Your task to perform on an android device: show emergency info Image 0: 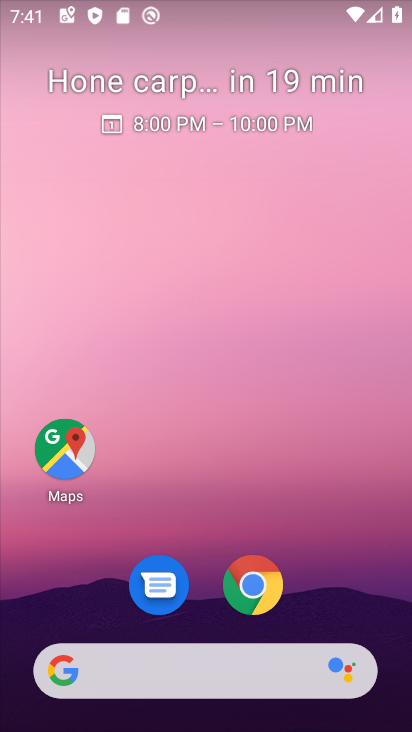
Step 0: drag from (323, 560) to (283, 85)
Your task to perform on an android device: show emergency info Image 1: 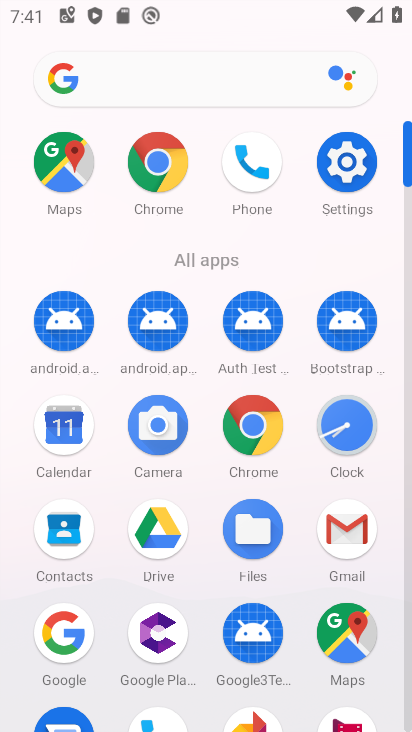
Step 1: click (345, 166)
Your task to perform on an android device: show emergency info Image 2: 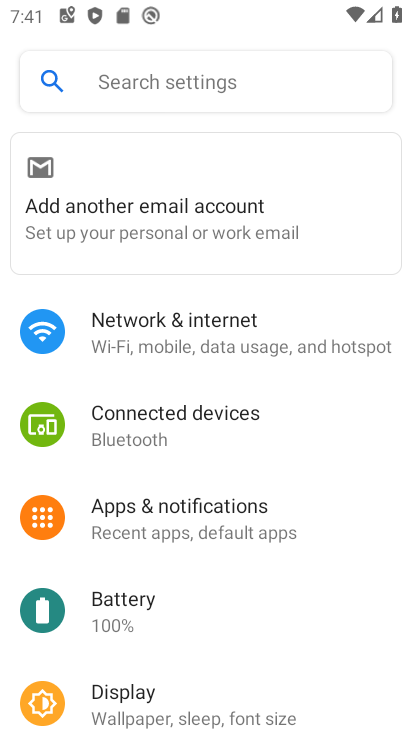
Step 2: drag from (210, 582) to (324, 140)
Your task to perform on an android device: show emergency info Image 3: 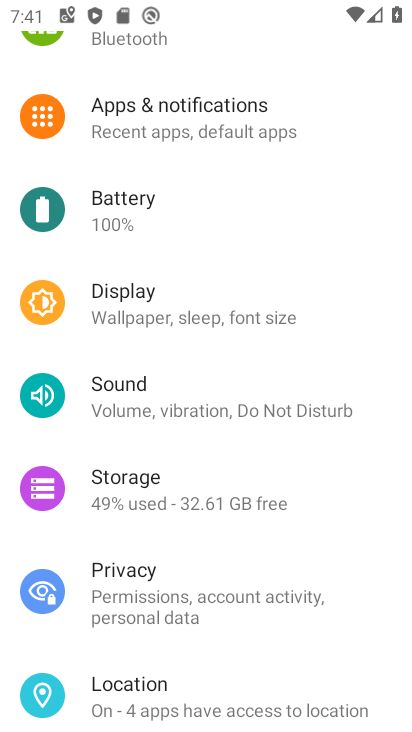
Step 3: drag from (218, 523) to (236, 98)
Your task to perform on an android device: show emergency info Image 4: 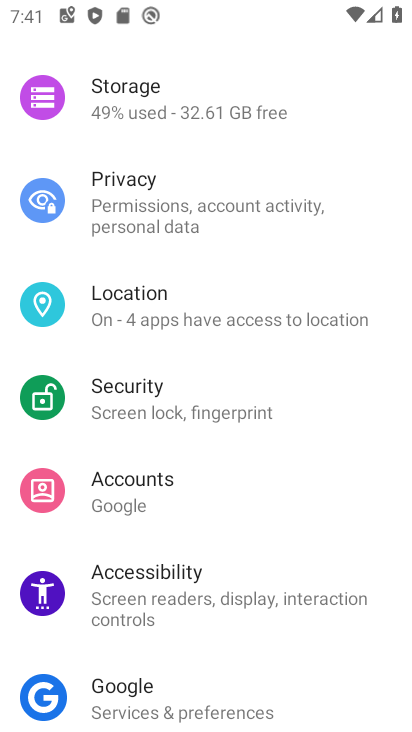
Step 4: drag from (225, 642) to (264, 266)
Your task to perform on an android device: show emergency info Image 5: 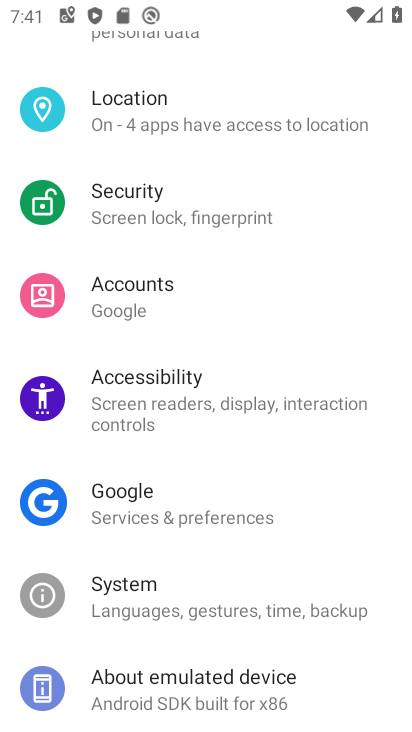
Step 5: click (188, 687)
Your task to perform on an android device: show emergency info Image 6: 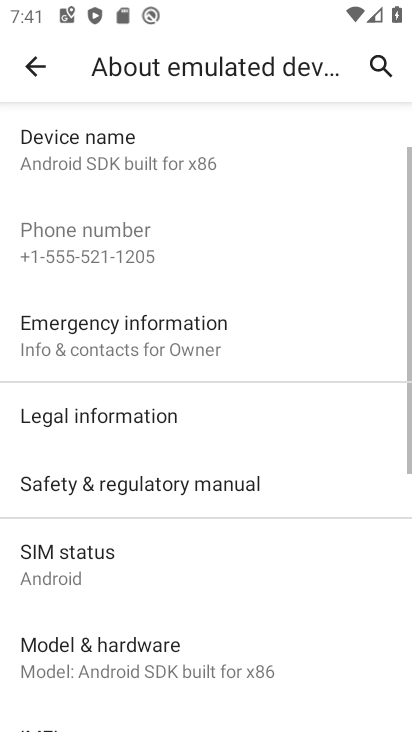
Step 6: click (180, 321)
Your task to perform on an android device: show emergency info Image 7: 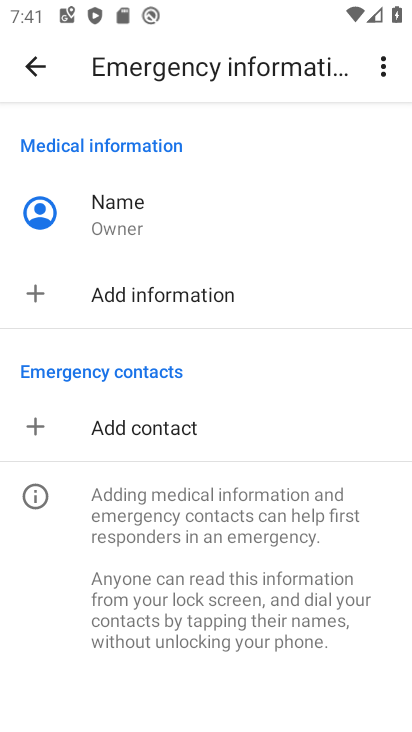
Step 7: task complete